Your task to perform on an android device: turn notification dots off Image 0: 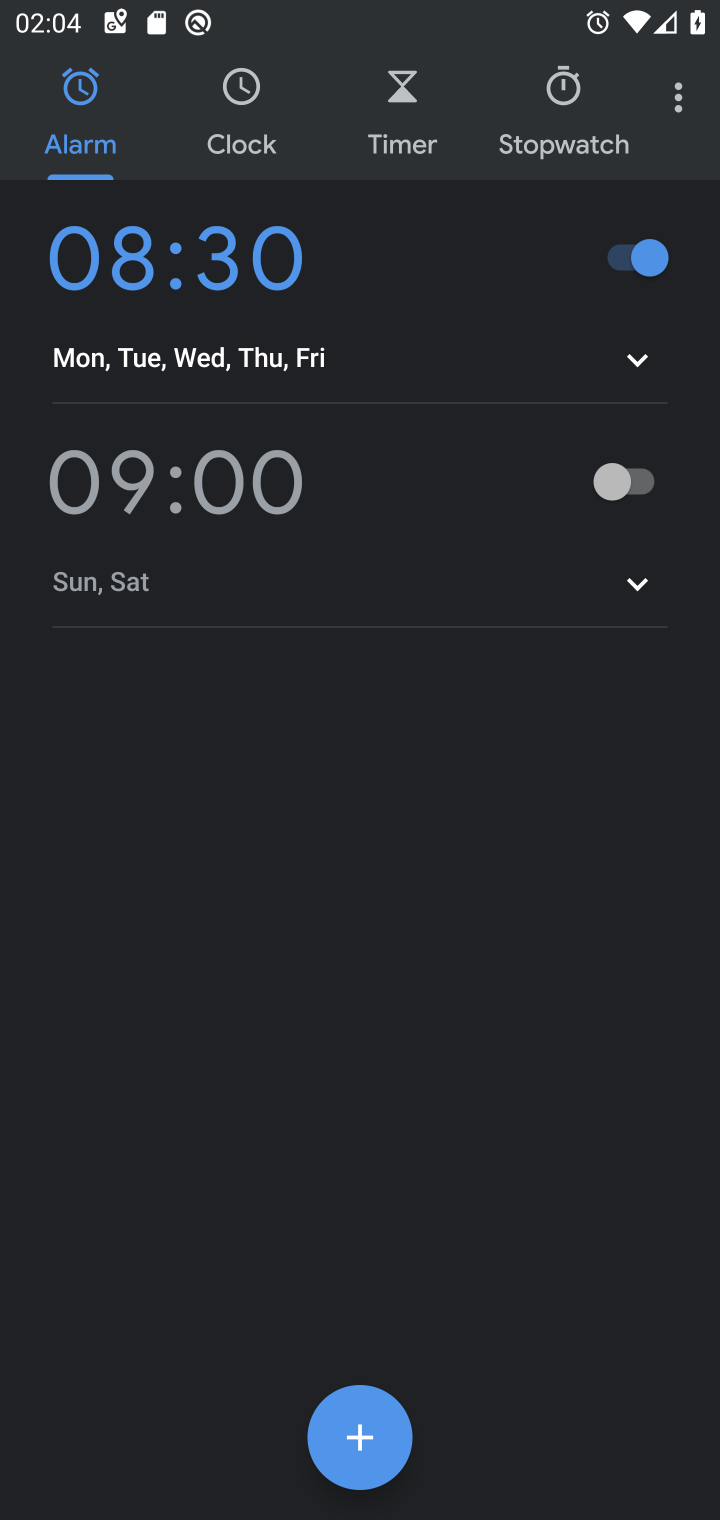
Step 0: press home button
Your task to perform on an android device: turn notification dots off Image 1: 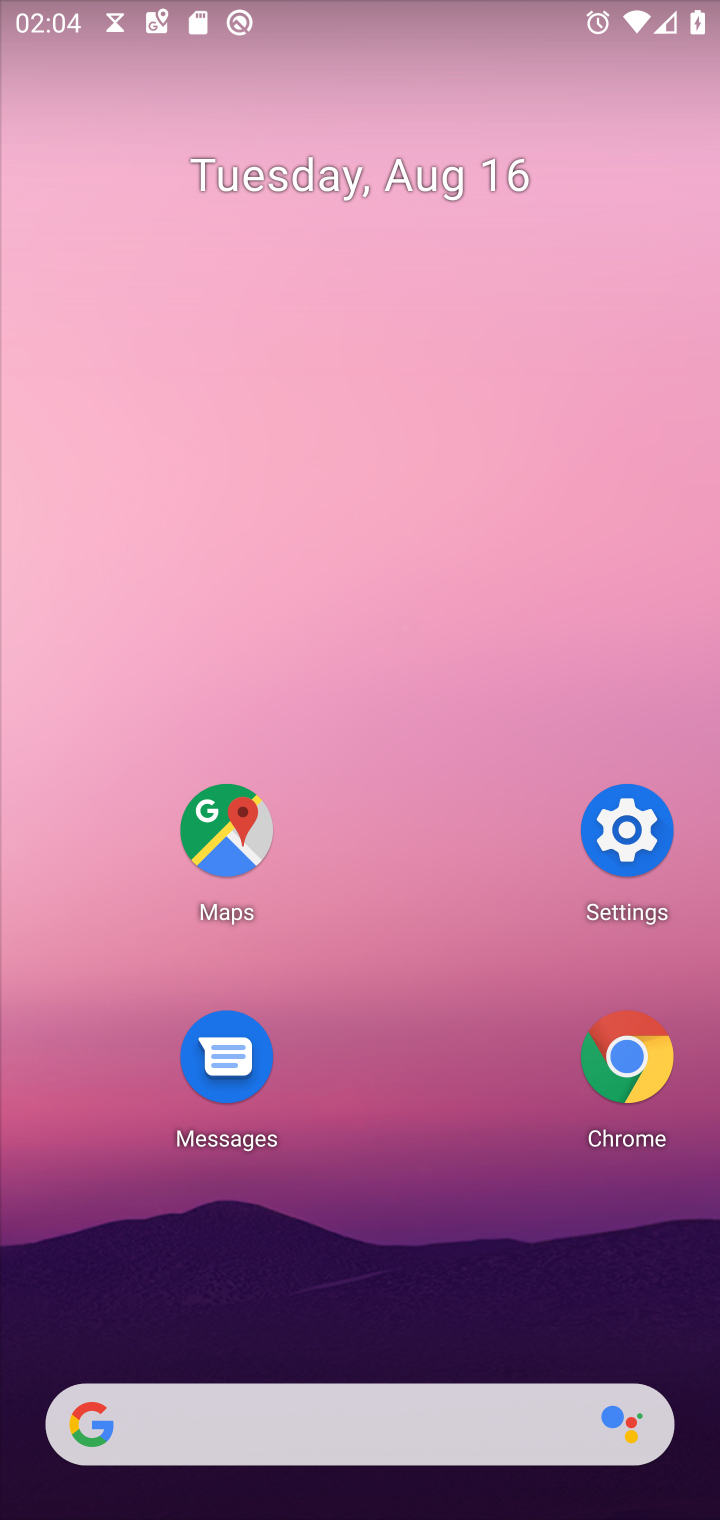
Step 1: click (635, 821)
Your task to perform on an android device: turn notification dots off Image 2: 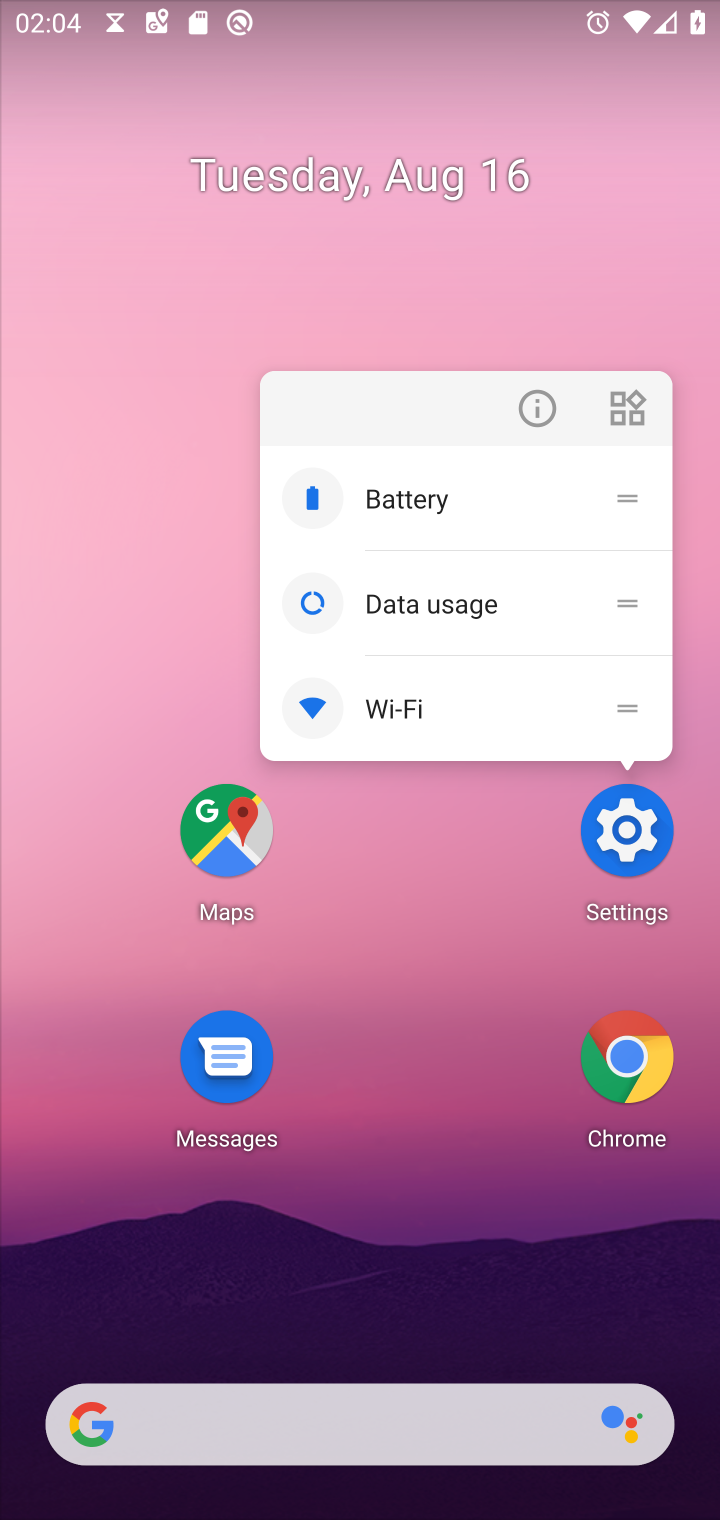
Step 2: click (633, 824)
Your task to perform on an android device: turn notification dots off Image 3: 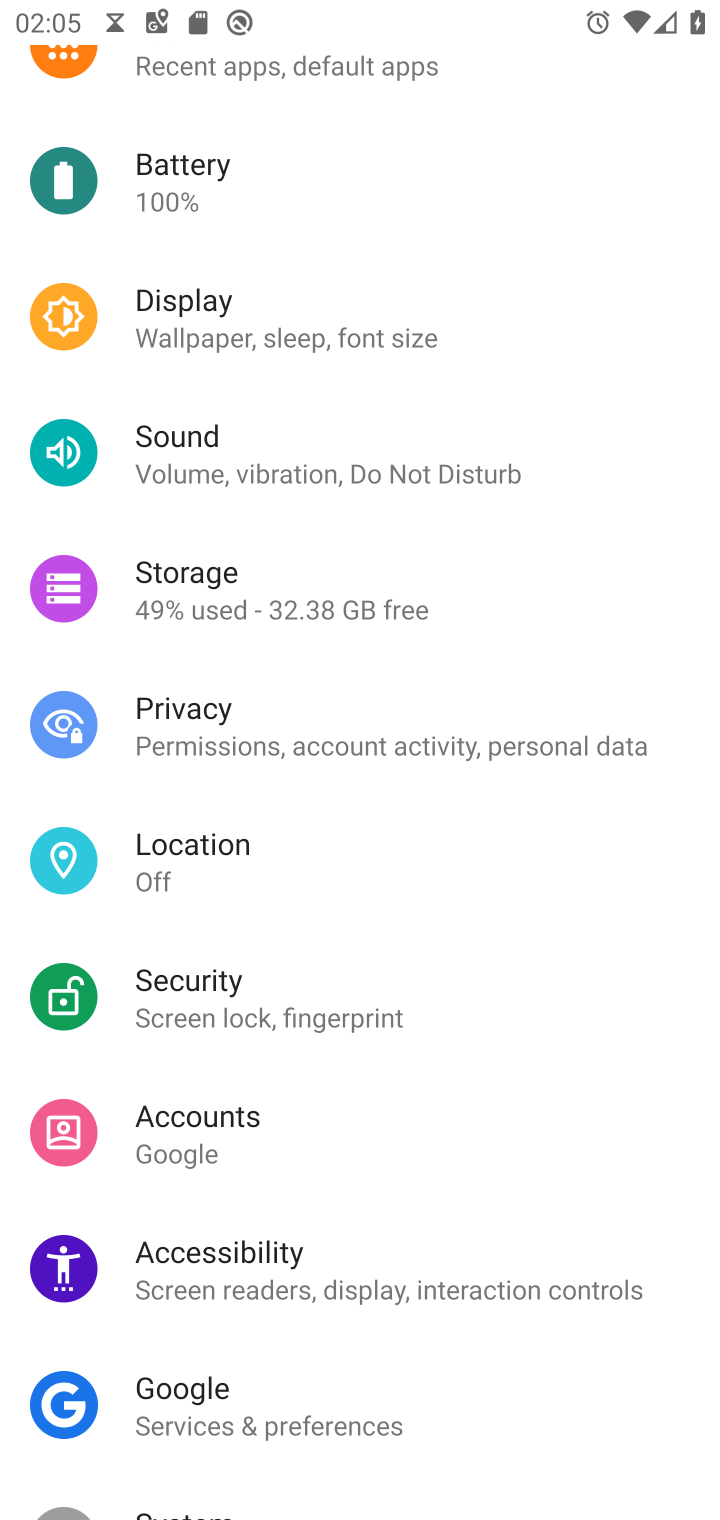
Step 3: drag from (530, 196) to (592, 1270)
Your task to perform on an android device: turn notification dots off Image 4: 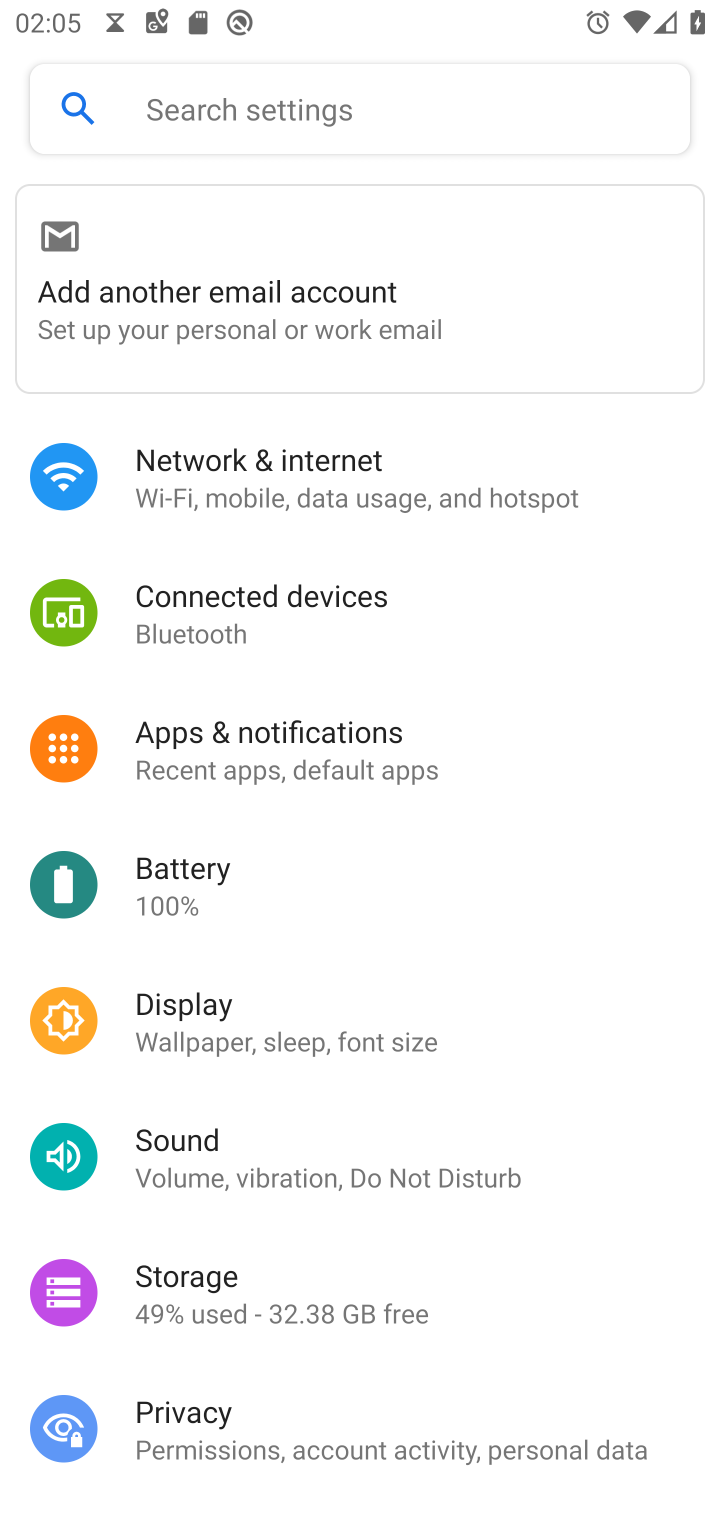
Step 4: click (317, 744)
Your task to perform on an android device: turn notification dots off Image 5: 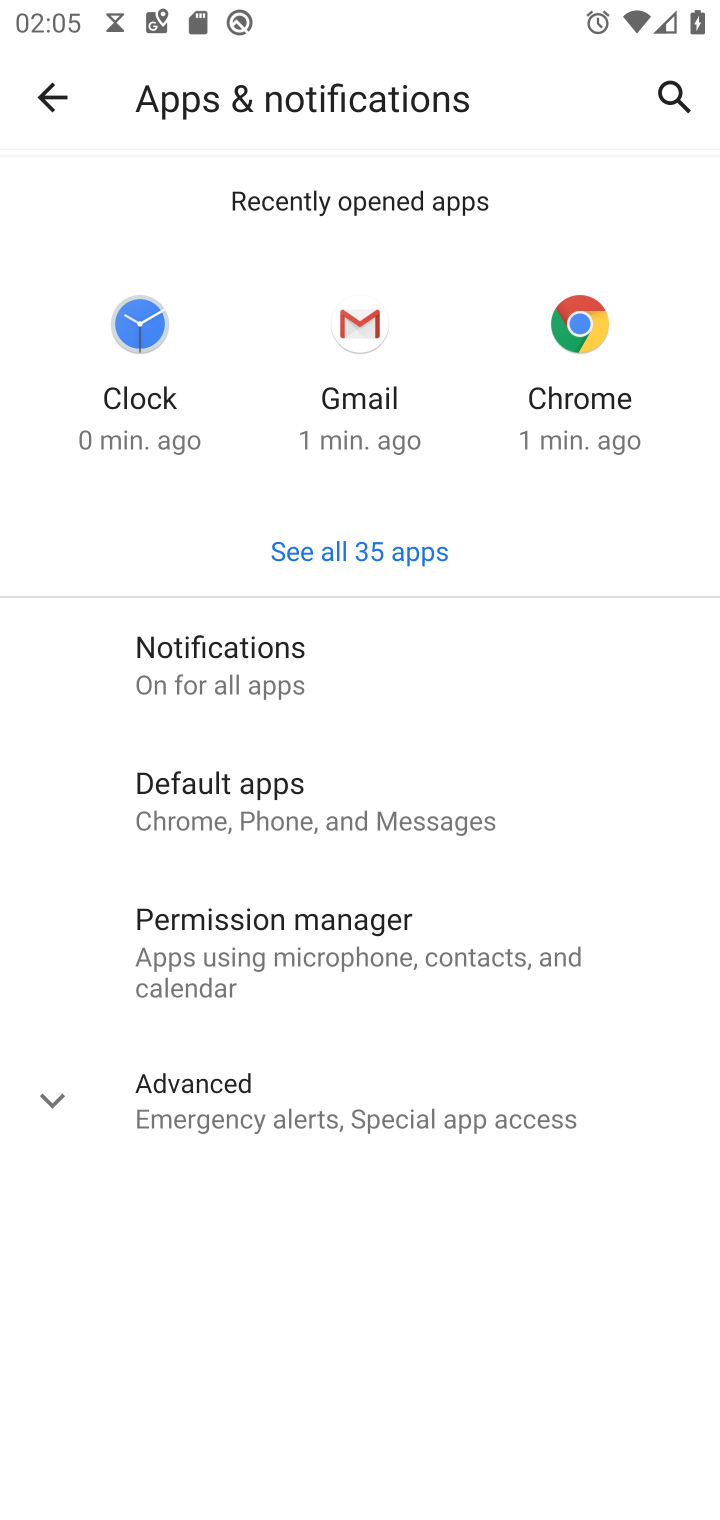
Step 5: click (254, 668)
Your task to perform on an android device: turn notification dots off Image 6: 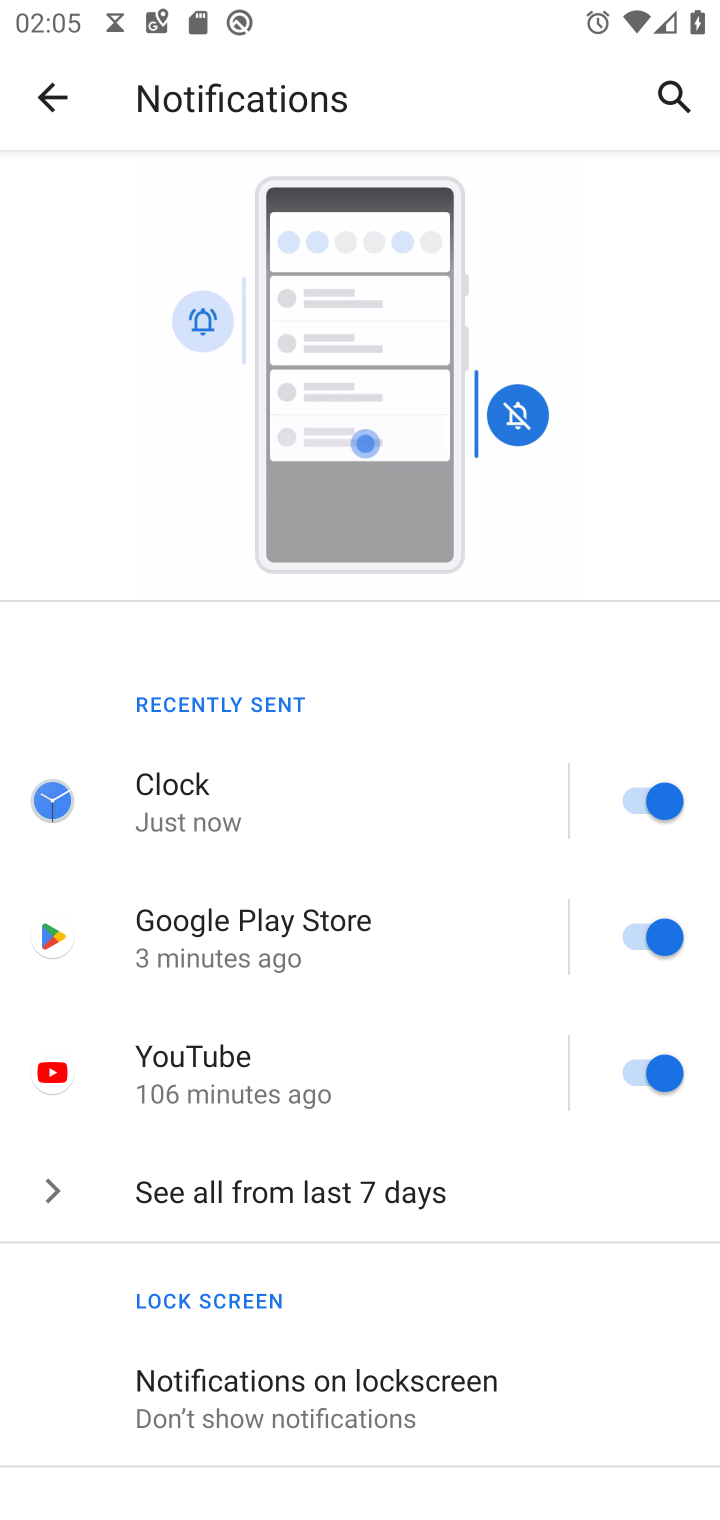
Step 6: drag from (468, 1183) to (718, 324)
Your task to perform on an android device: turn notification dots off Image 7: 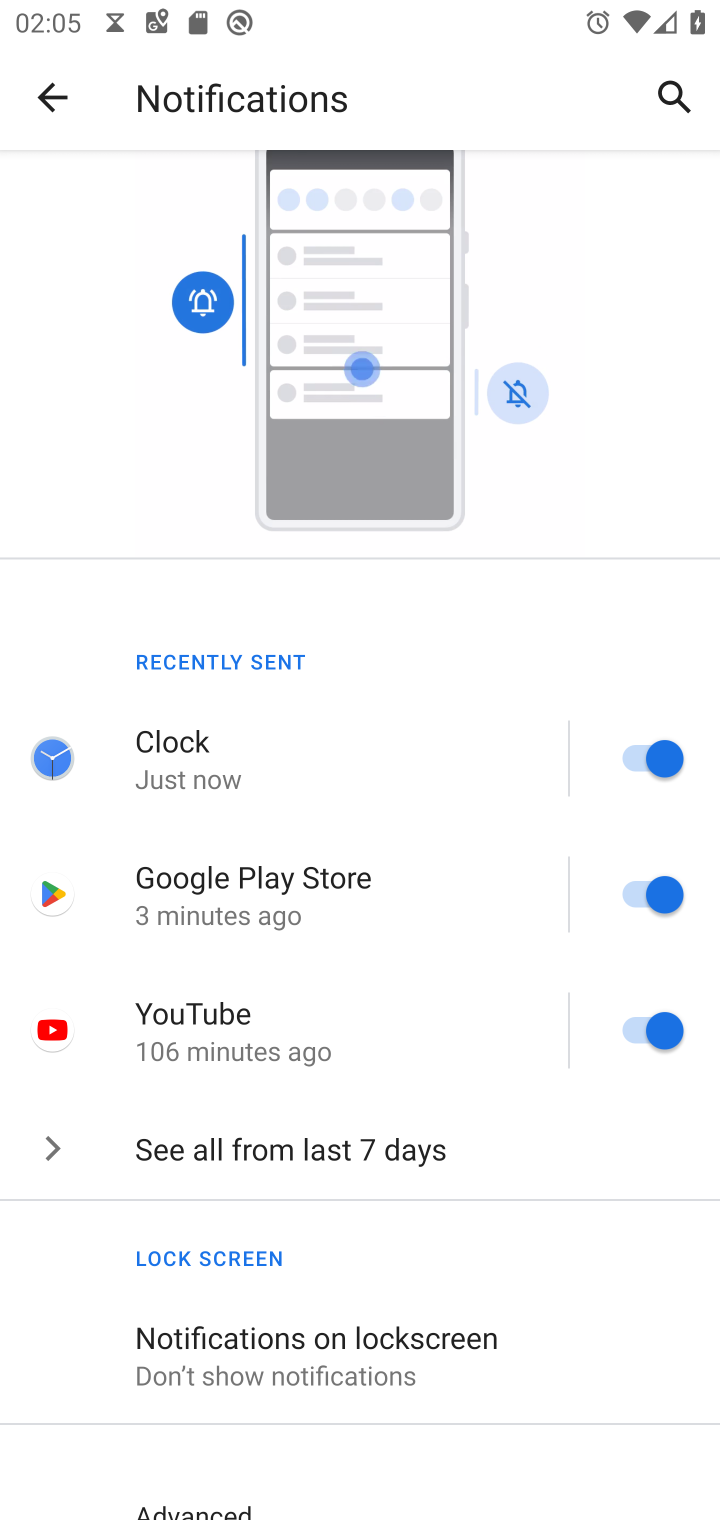
Step 7: drag from (334, 1402) to (623, 275)
Your task to perform on an android device: turn notification dots off Image 8: 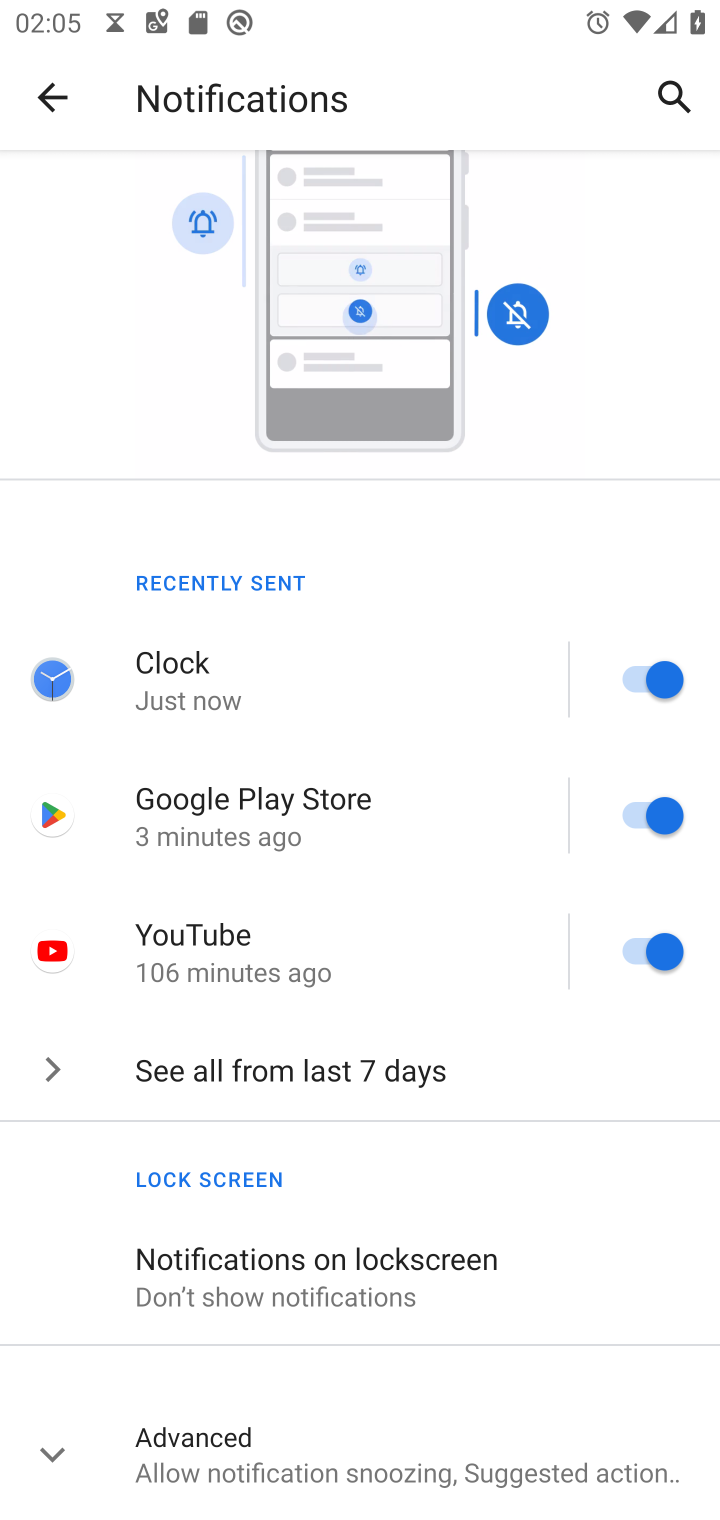
Step 8: click (221, 1428)
Your task to perform on an android device: turn notification dots off Image 9: 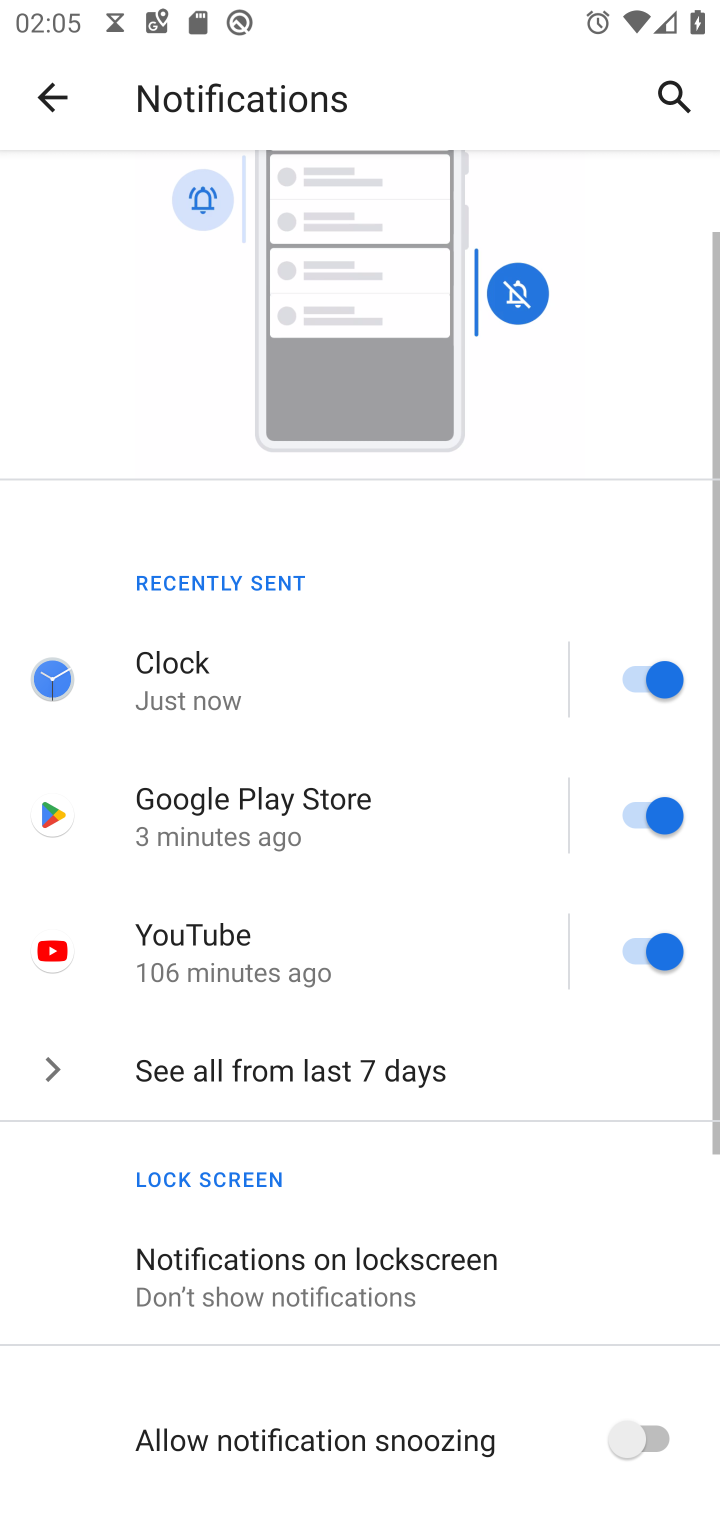
Step 9: task complete